Your task to perform on an android device: delete a single message in the gmail app Image 0: 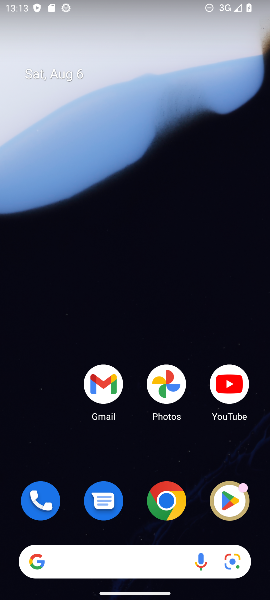
Step 0: click (100, 393)
Your task to perform on an android device: delete a single message in the gmail app Image 1: 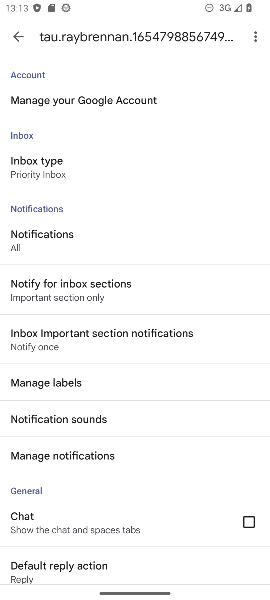
Step 1: drag from (87, 204) to (115, 592)
Your task to perform on an android device: delete a single message in the gmail app Image 2: 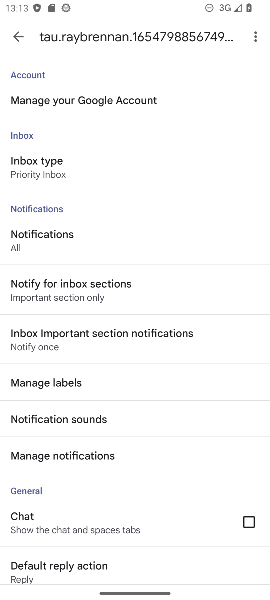
Step 2: click (13, 38)
Your task to perform on an android device: delete a single message in the gmail app Image 3: 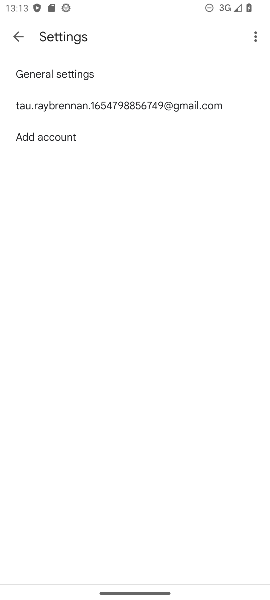
Step 3: click (13, 38)
Your task to perform on an android device: delete a single message in the gmail app Image 4: 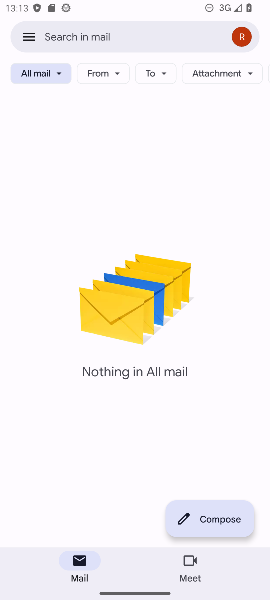
Step 4: click (32, 38)
Your task to perform on an android device: delete a single message in the gmail app Image 5: 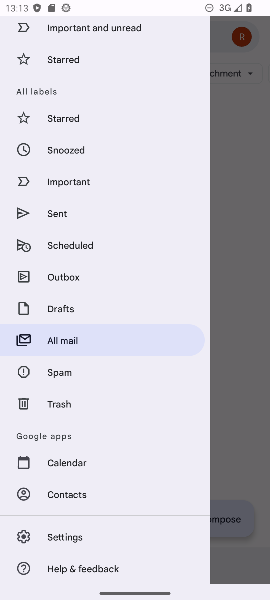
Step 5: task complete